Your task to perform on an android device: install app "Reddit" Image 0: 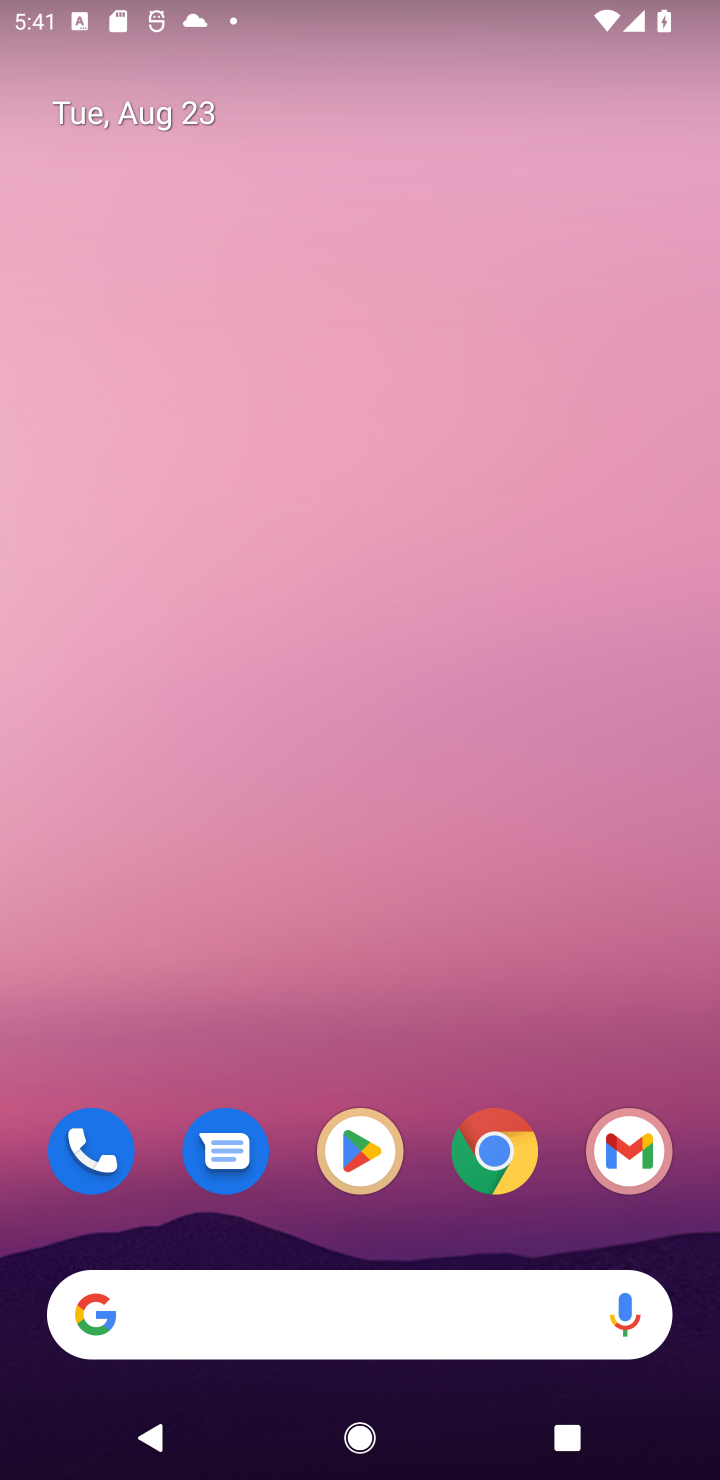
Step 0: click (358, 1143)
Your task to perform on an android device: install app "Reddit" Image 1: 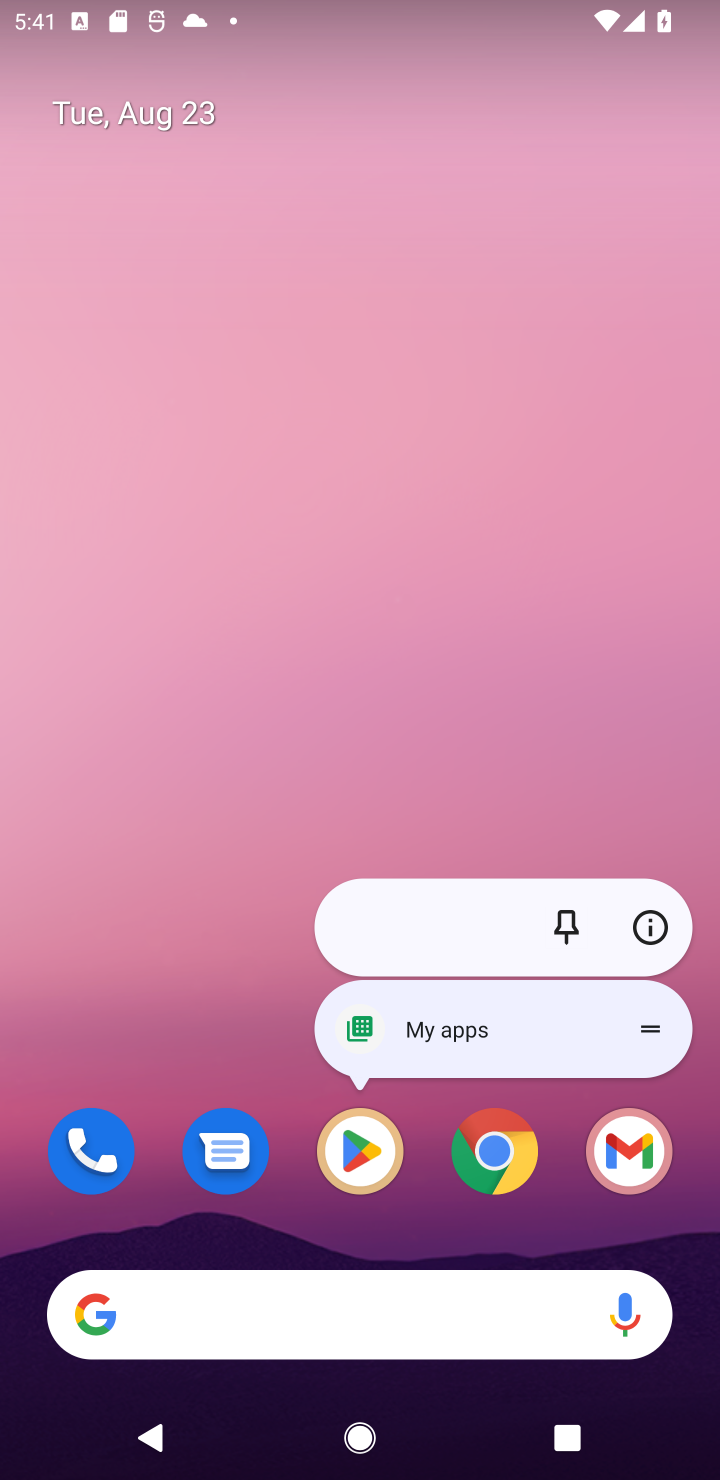
Step 1: click (358, 1156)
Your task to perform on an android device: install app "Reddit" Image 2: 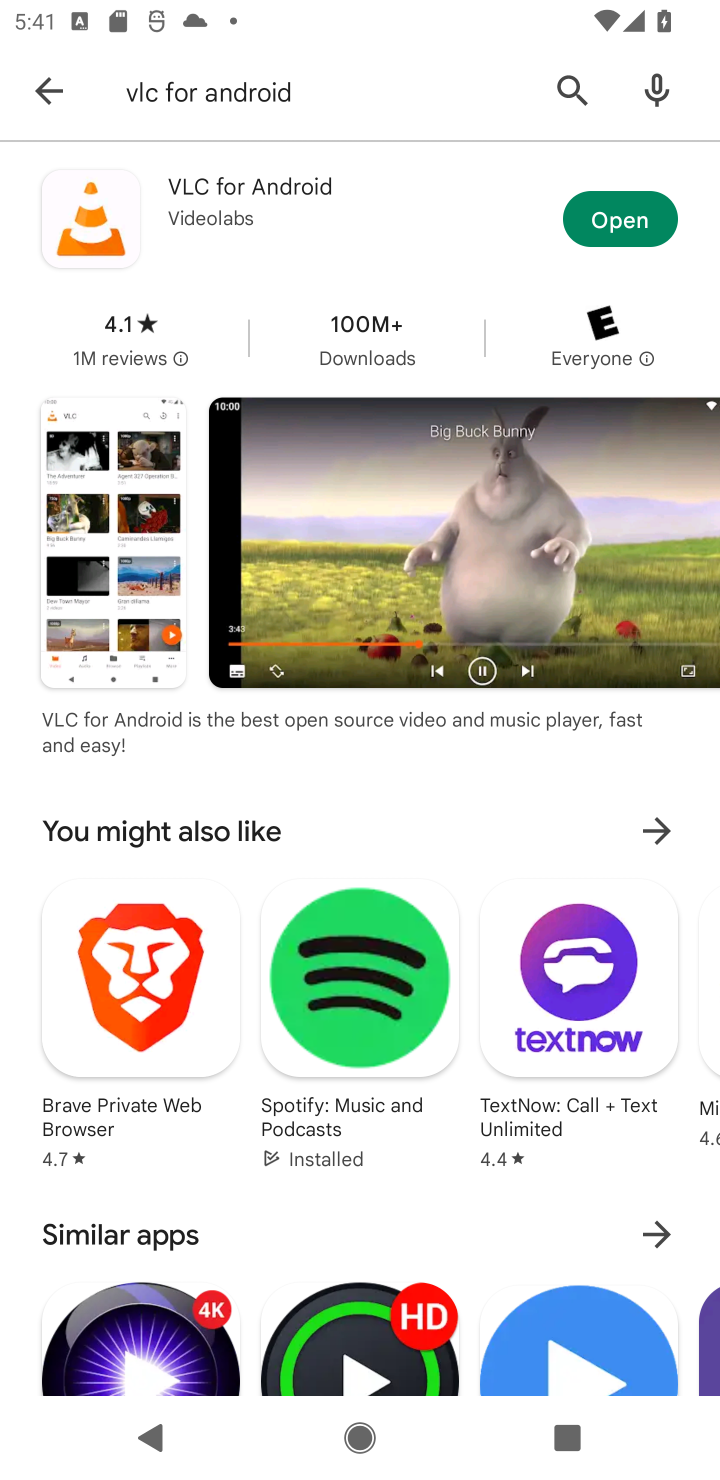
Step 2: click (573, 75)
Your task to perform on an android device: install app "Reddit" Image 3: 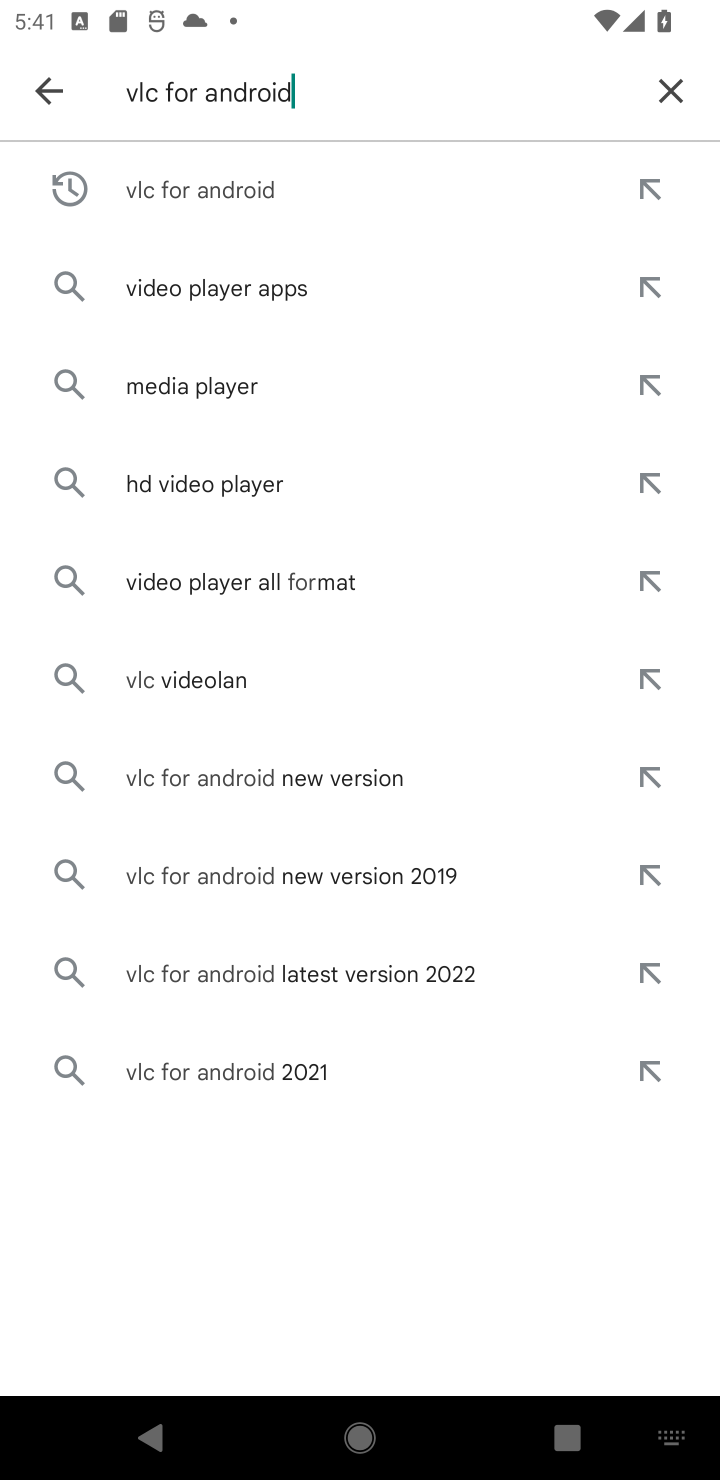
Step 3: click (668, 87)
Your task to perform on an android device: install app "Reddit" Image 4: 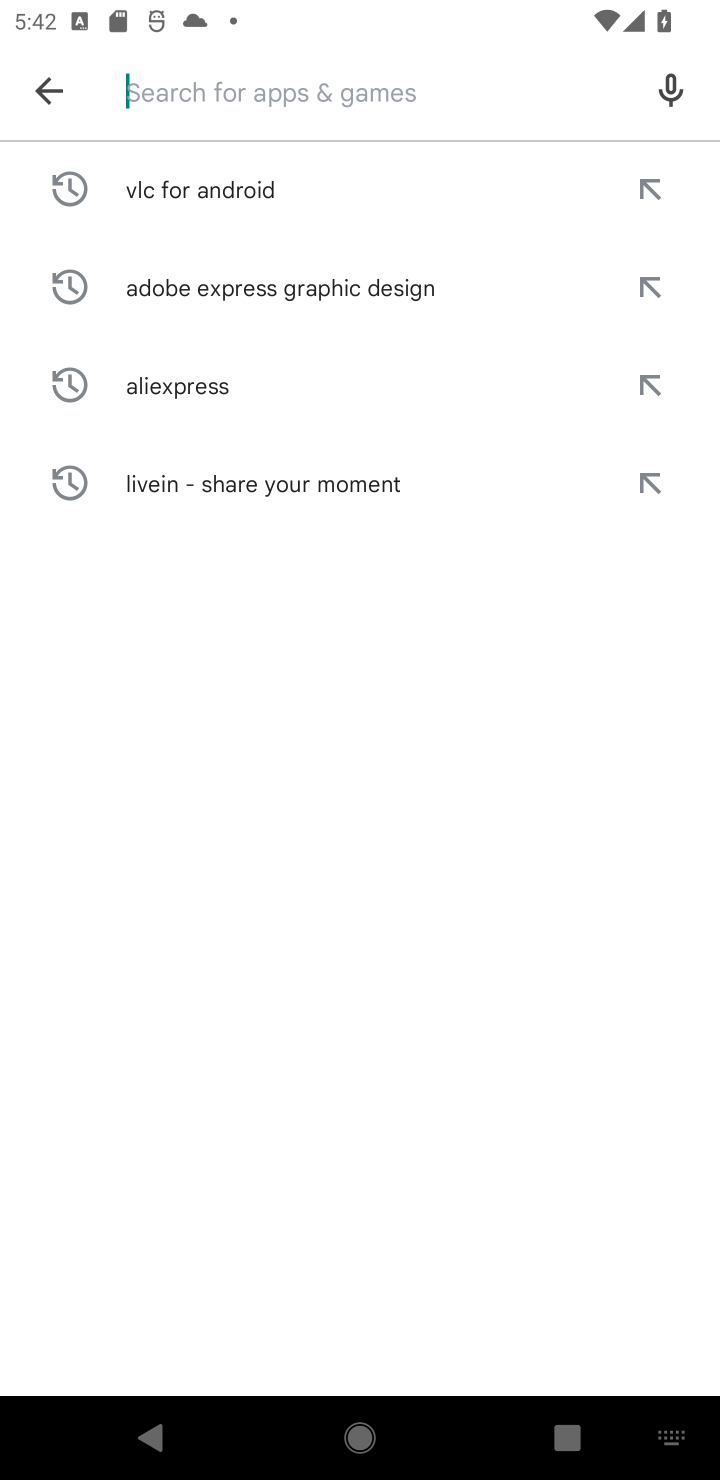
Step 4: type "Reddit"
Your task to perform on an android device: install app "Reddit" Image 5: 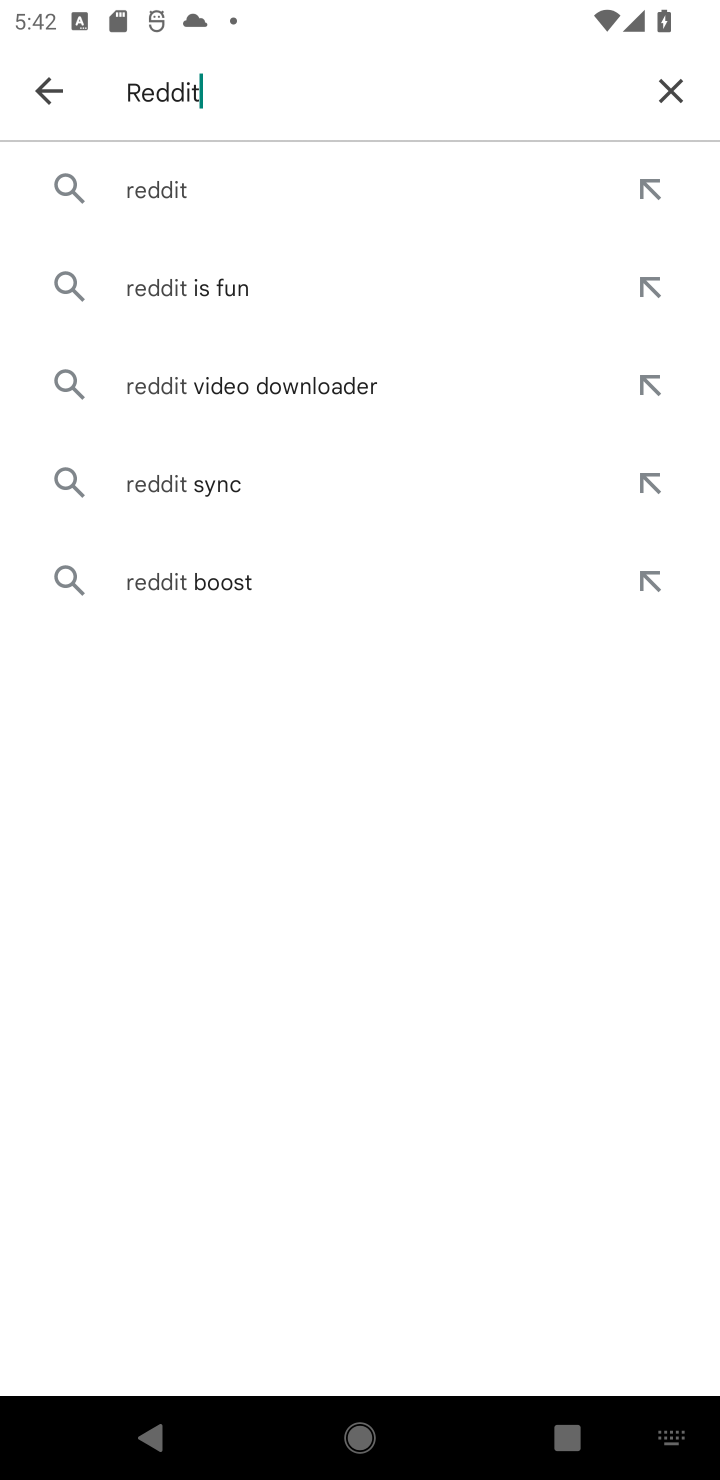
Step 5: click (156, 174)
Your task to perform on an android device: install app "Reddit" Image 6: 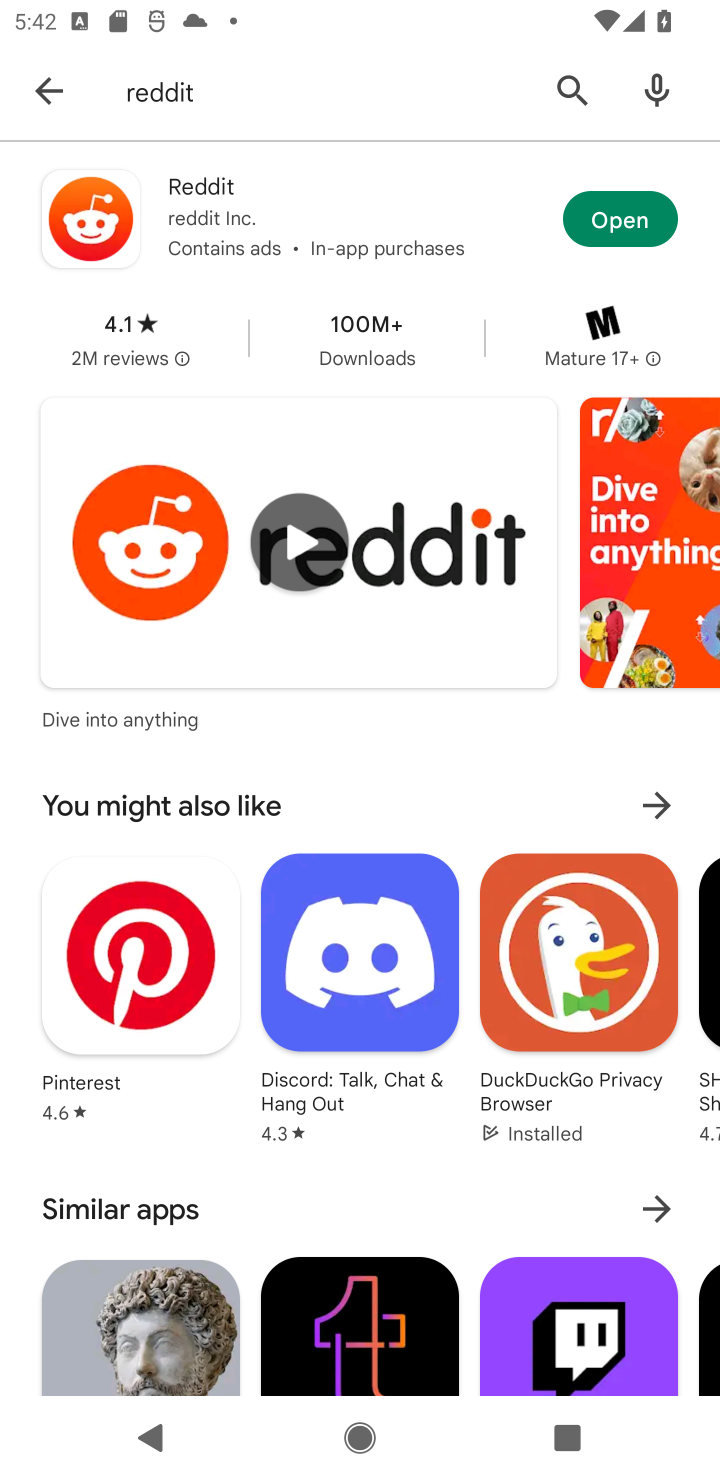
Step 6: task complete